Your task to perform on an android device: show emergency info Image 0: 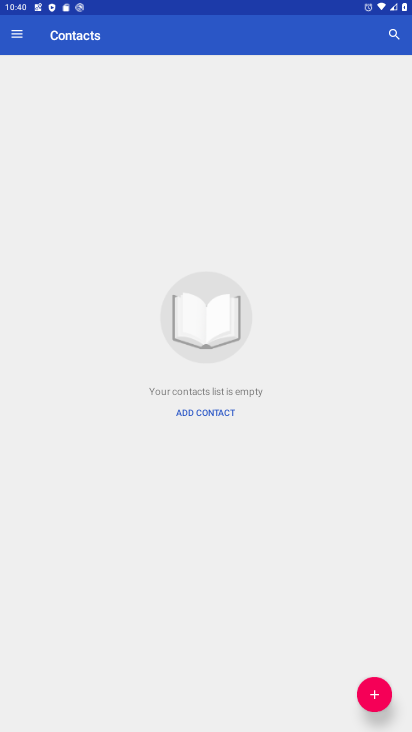
Step 0: press home button
Your task to perform on an android device: show emergency info Image 1: 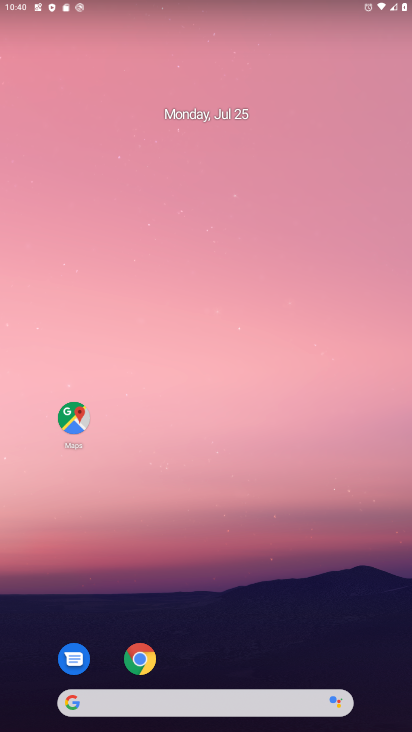
Step 1: drag from (201, 678) to (140, 24)
Your task to perform on an android device: show emergency info Image 2: 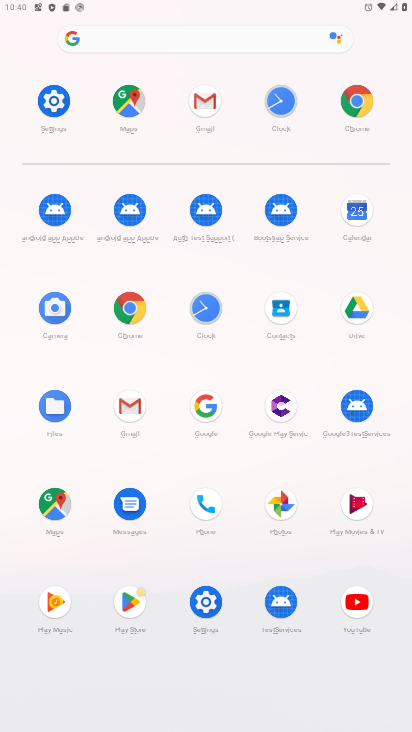
Step 2: click (207, 608)
Your task to perform on an android device: show emergency info Image 3: 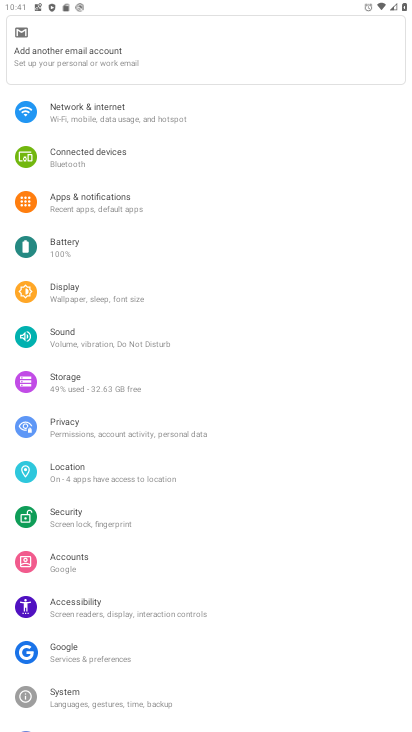
Step 3: drag from (104, 686) to (92, 189)
Your task to perform on an android device: show emergency info Image 4: 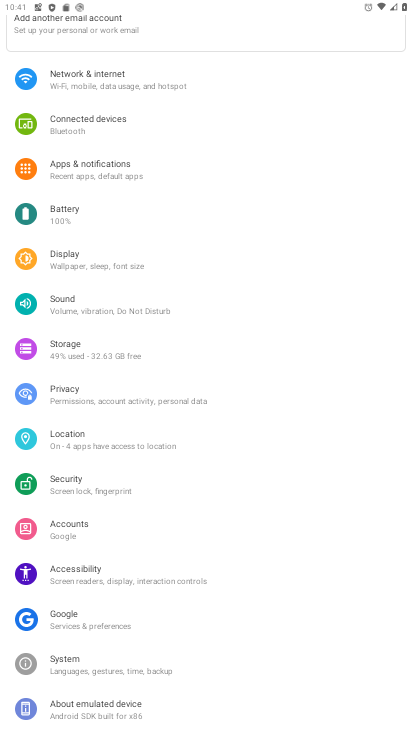
Step 4: click (92, 693)
Your task to perform on an android device: show emergency info Image 5: 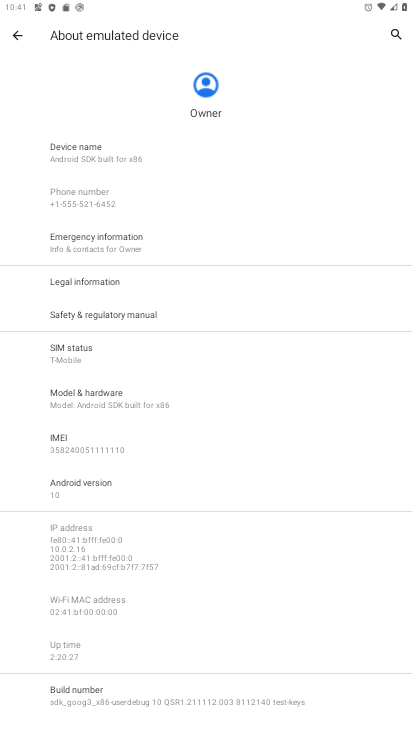
Step 5: click (65, 232)
Your task to perform on an android device: show emergency info Image 6: 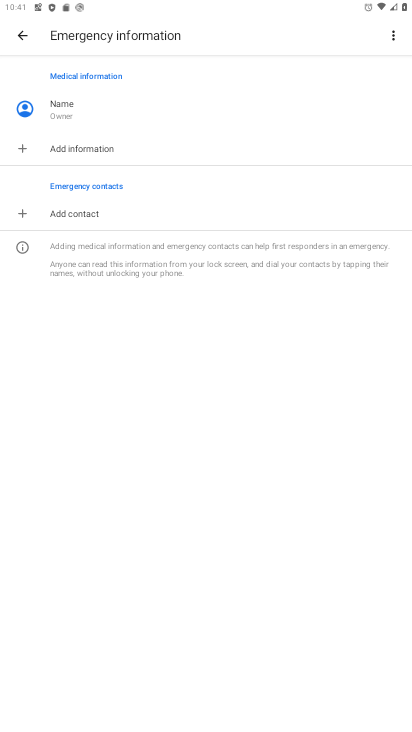
Step 6: task complete